Your task to perform on an android device: Play the last video I watched on Youtube Image 0: 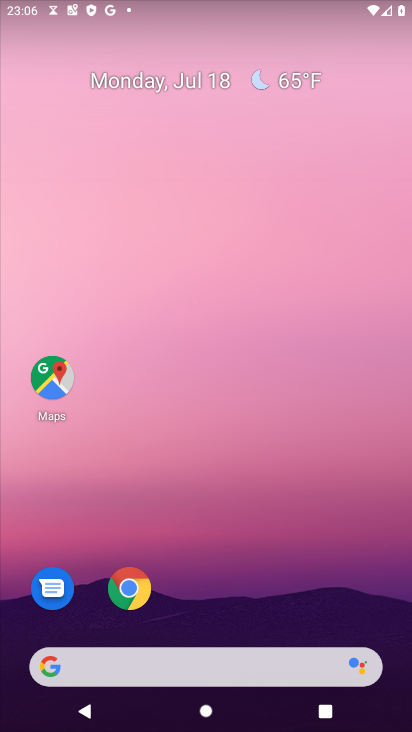
Step 0: drag from (183, 664) to (267, 3)
Your task to perform on an android device: Play the last video I watched on Youtube Image 1: 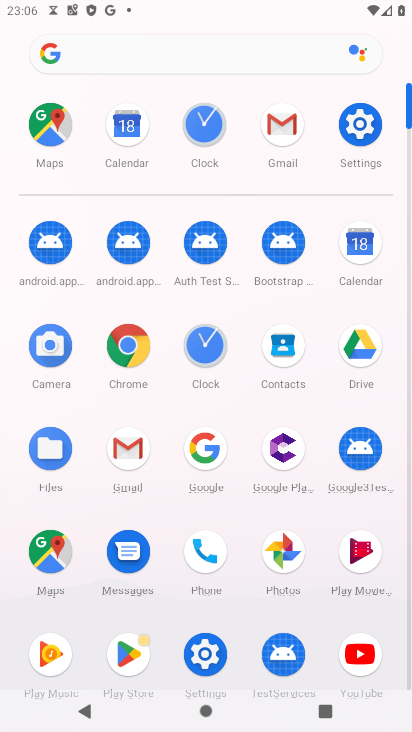
Step 1: click (359, 654)
Your task to perform on an android device: Play the last video I watched on Youtube Image 2: 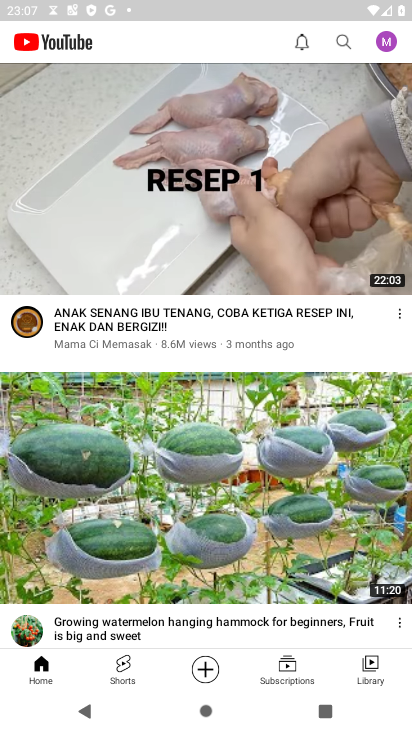
Step 2: click (370, 665)
Your task to perform on an android device: Play the last video I watched on Youtube Image 3: 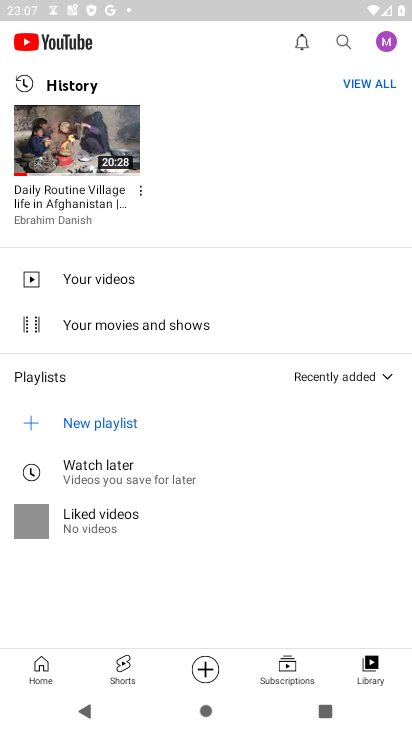
Step 3: click (57, 160)
Your task to perform on an android device: Play the last video I watched on Youtube Image 4: 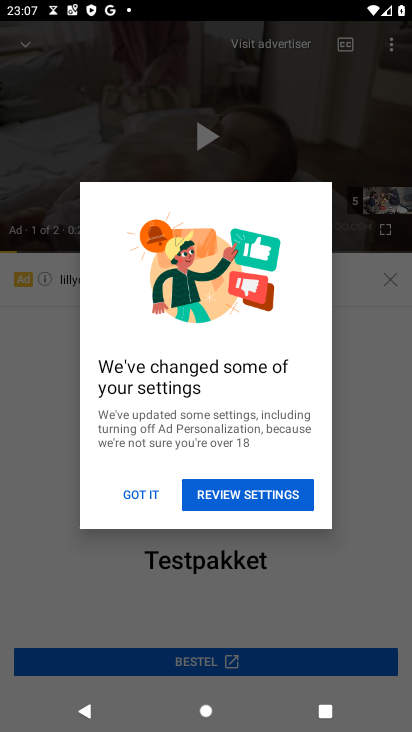
Step 4: click (147, 494)
Your task to perform on an android device: Play the last video I watched on Youtube Image 5: 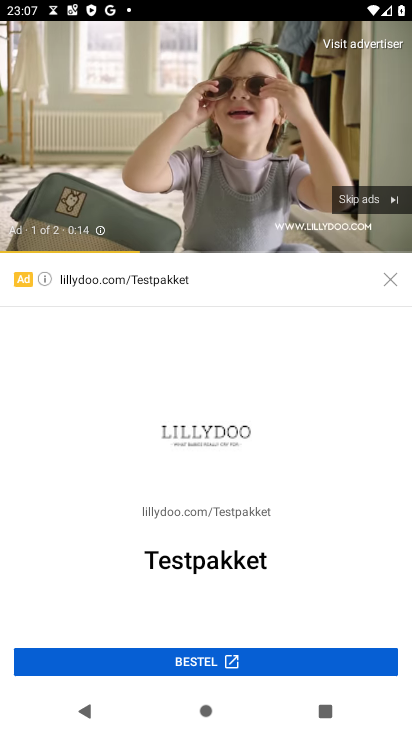
Step 5: click (389, 205)
Your task to perform on an android device: Play the last video I watched on Youtube Image 6: 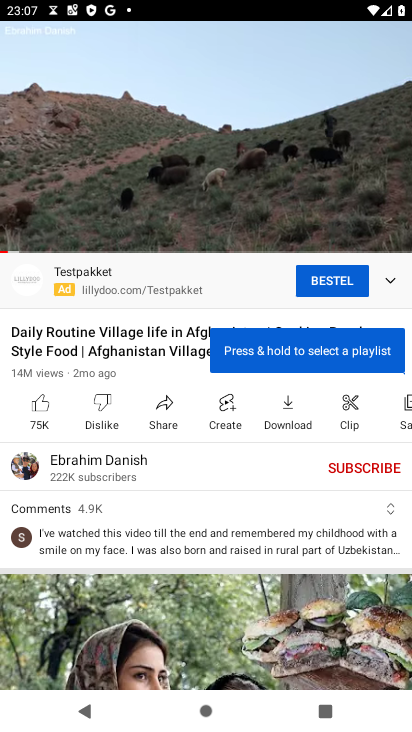
Step 6: click (225, 127)
Your task to perform on an android device: Play the last video I watched on Youtube Image 7: 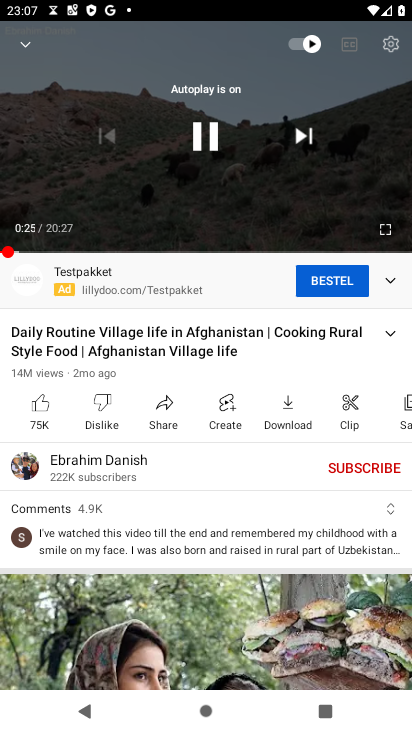
Step 7: click (210, 130)
Your task to perform on an android device: Play the last video I watched on Youtube Image 8: 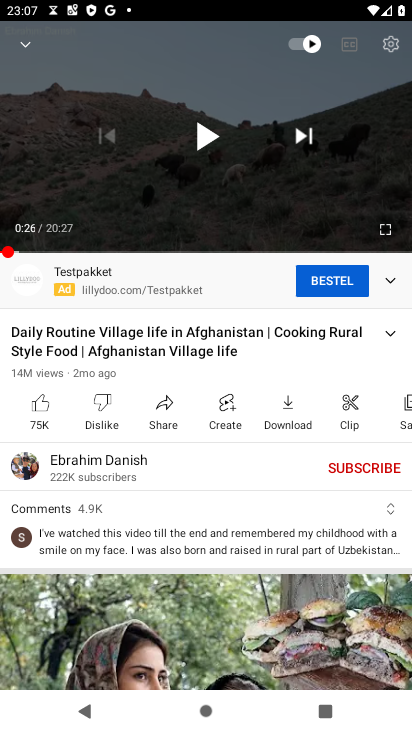
Step 8: task complete